Your task to perform on an android device: Open settings Image 0: 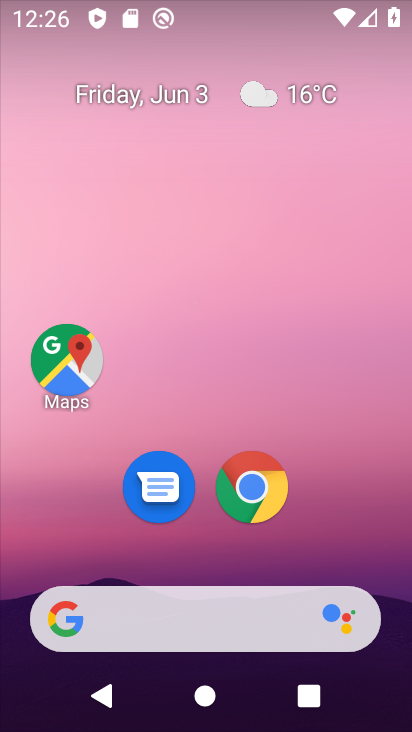
Step 0: drag from (181, 614) to (135, 173)
Your task to perform on an android device: Open settings Image 1: 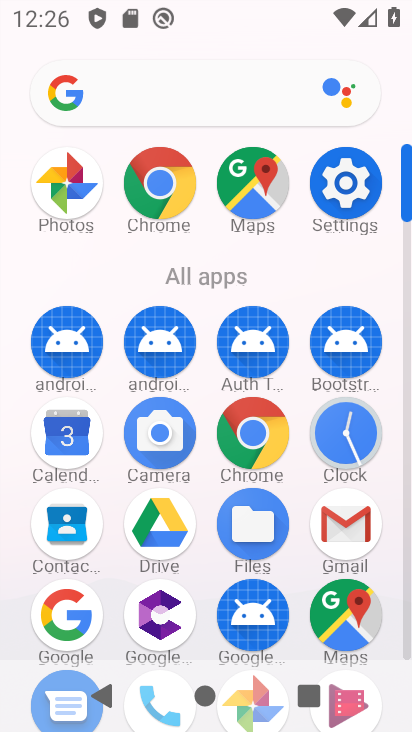
Step 1: click (350, 183)
Your task to perform on an android device: Open settings Image 2: 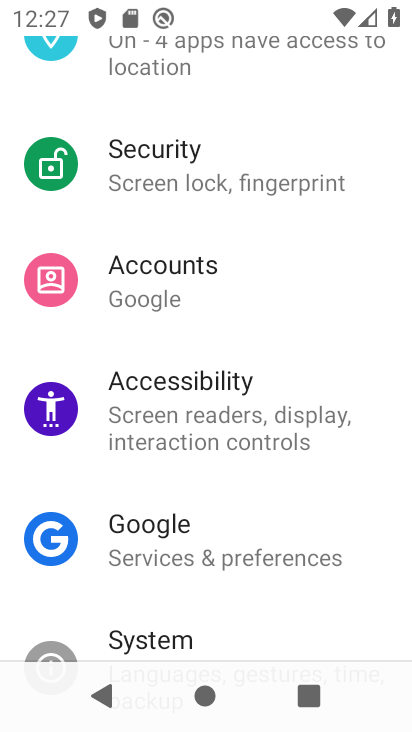
Step 2: task complete